Your task to perform on an android device: check the backup settings in the google photos Image 0: 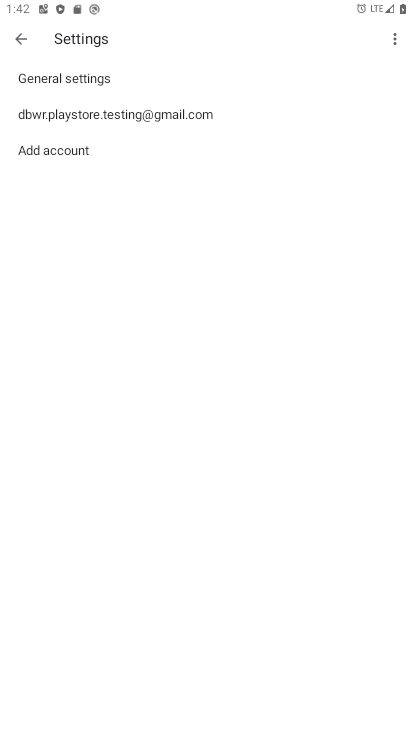
Step 0: press home button
Your task to perform on an android device: check the backup settings in the google photos Image 1: 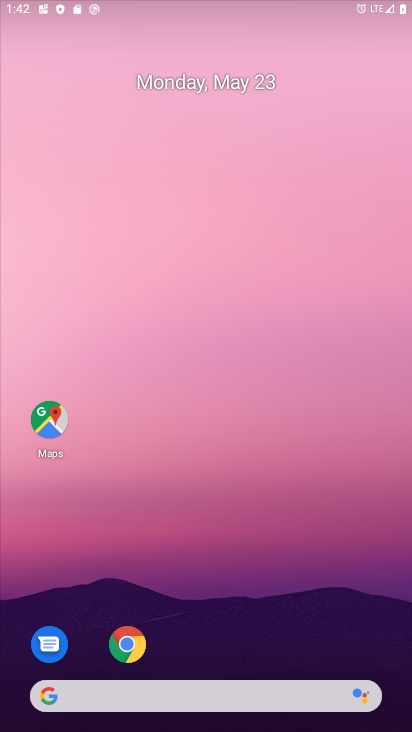
Step 1: drag from (330, 620) to (330, 99)
Your task to perform on an android device: check the backup settings in the google photos Image 2: 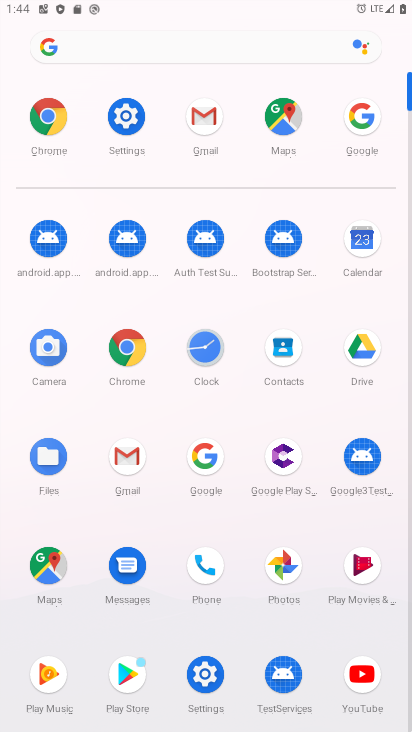
Step 2: click (284, 567)
Your task to perform on an android device: check the backup settings in the google photos Image 3: 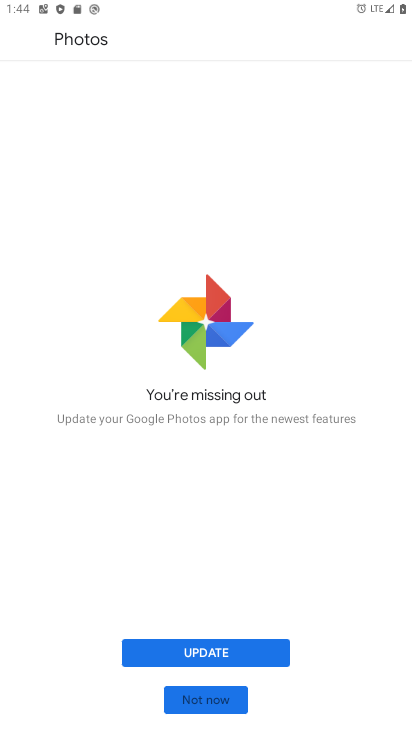
Step 3: click (213, 648)
Your task to perform on an android device: check the backup settings in the google photos Image 4: 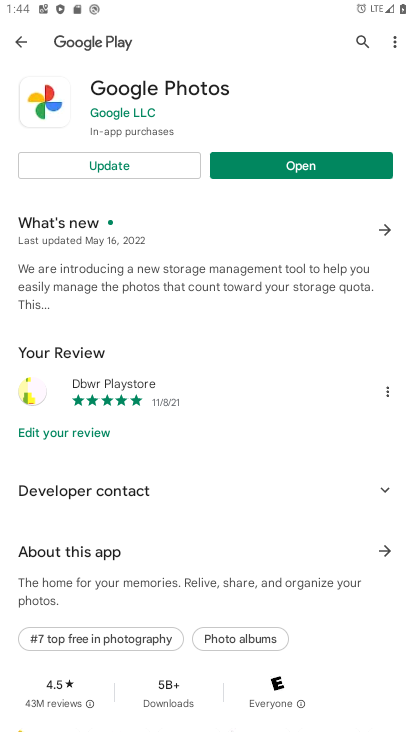
Step 4: click (160, 166)
Your task to perform on an android device: check the backup settings in the google photos Image 5: 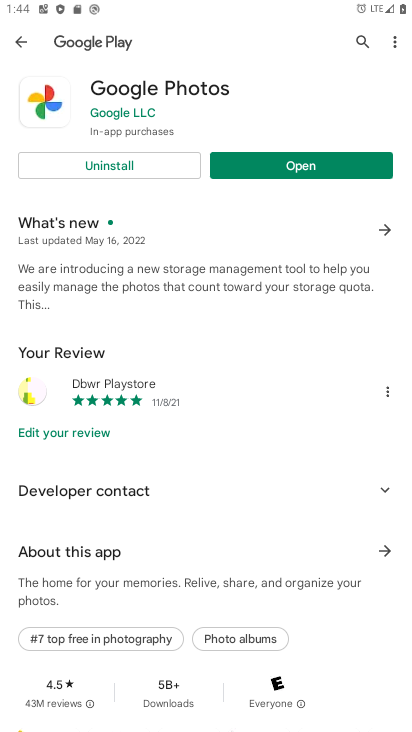
Step 5: click (302, 159)
Your task to perform on an android device: check the backup settings in the google photos Image 6: 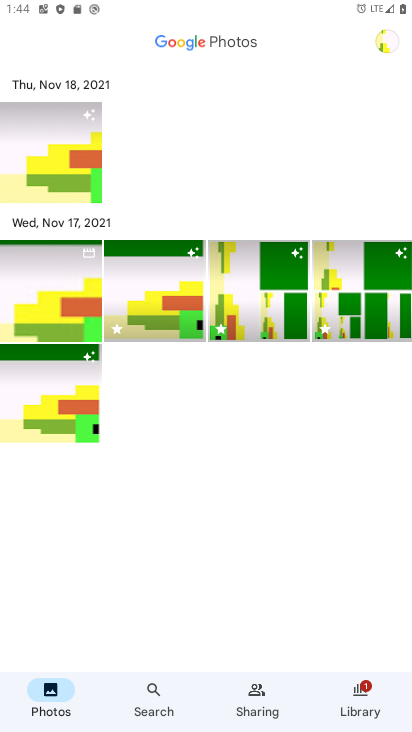
Step 6: click (387, 45)
Your task to perform on an android device: check the backup settings in the google photos Image 7: 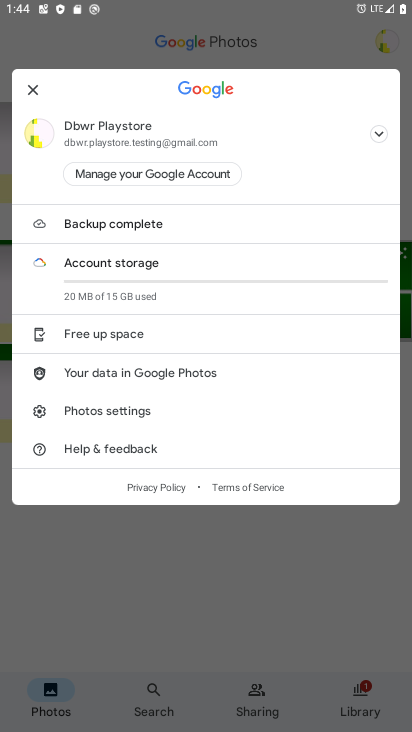
Step 7: click (147, 410)
Your task to perform on an android device: check the backup settings in the google photos Image 8: 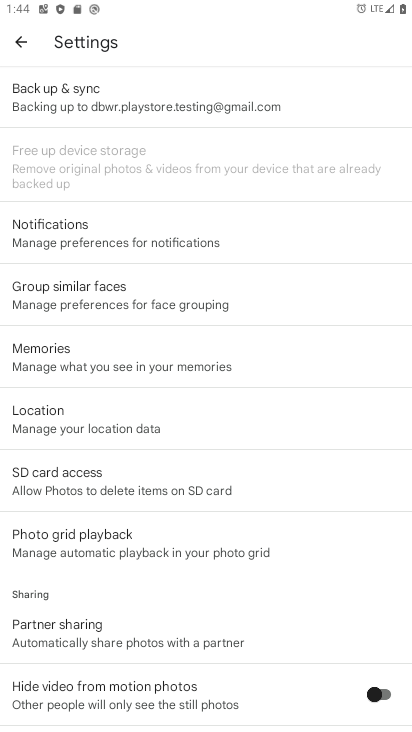
Step 8: click (160, 116)
Your task to perform on an android device: check the backup settings in the google photos Image 9: 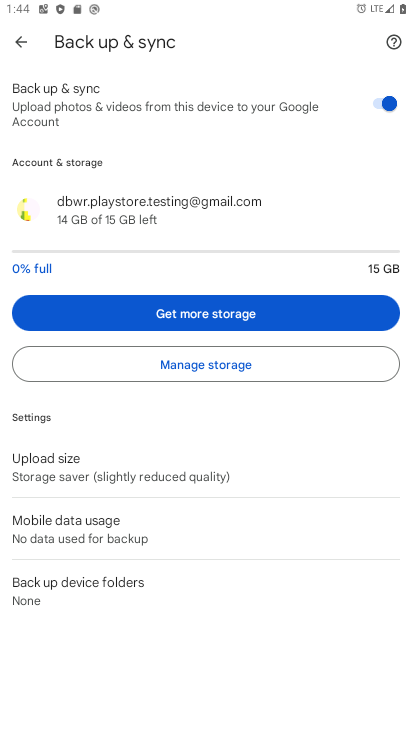
Step 9: task complete